Your task to perform on an android device: change your default location settings in chrome Image 0: 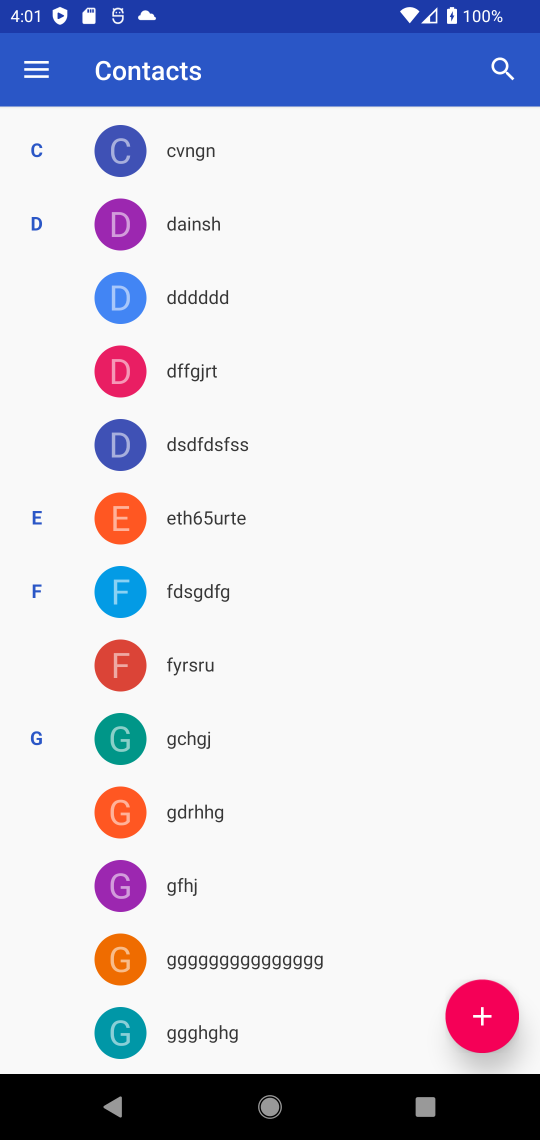
Step 0: press home button
Your task to perform on an android device: change your default location settings in chrome Image 1: 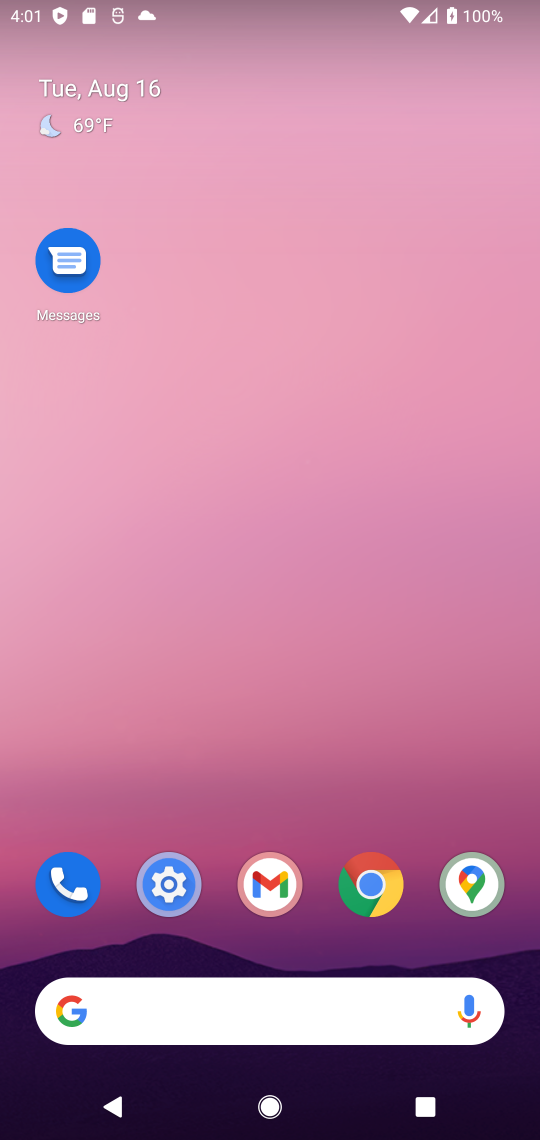
Step 1: click (353, 877)
Your task to perform on an android device: change your default location settings in chrome Image 2: 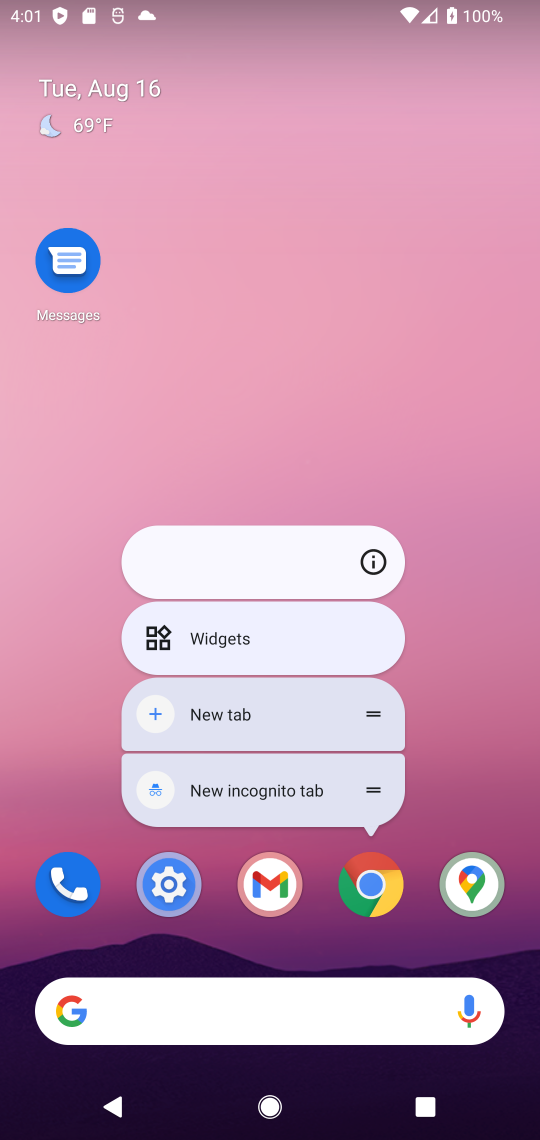
Step 2: click (362, 901)
Your task to perform on an android device: change your default location settings in chrome Image 3: 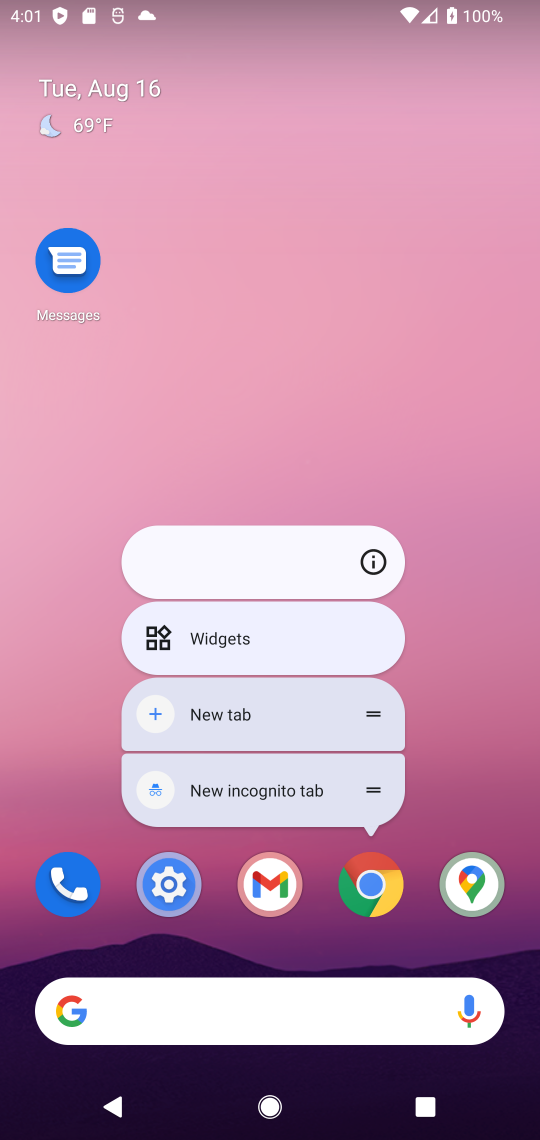
Step 3: click (348, 890)
Your task to perform on an android device: change your default location settings in chrome Image 4: 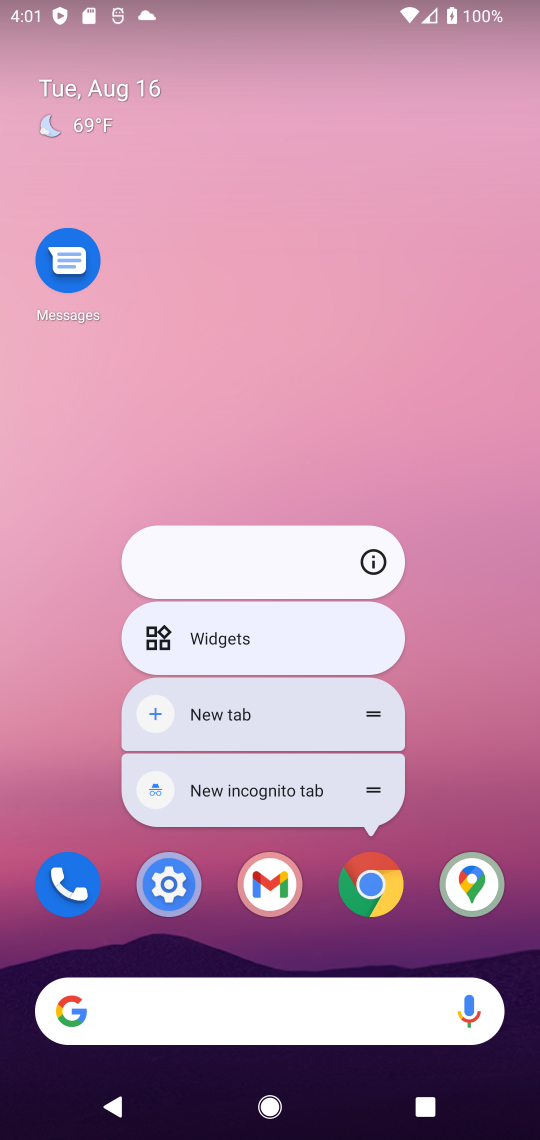
Step 4: task complete